Your task to perform on an android device: delete browsing data in the chrome app Image 0: 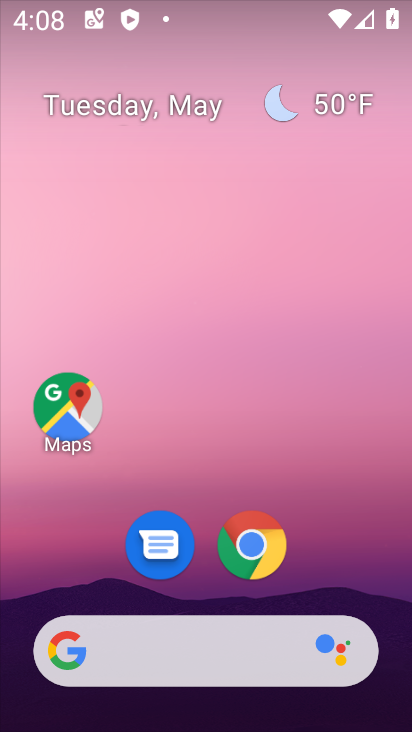
Step 0: click (253, 541)
Your task to perform on an android device: delete browsing data in the chrome app Image 1: 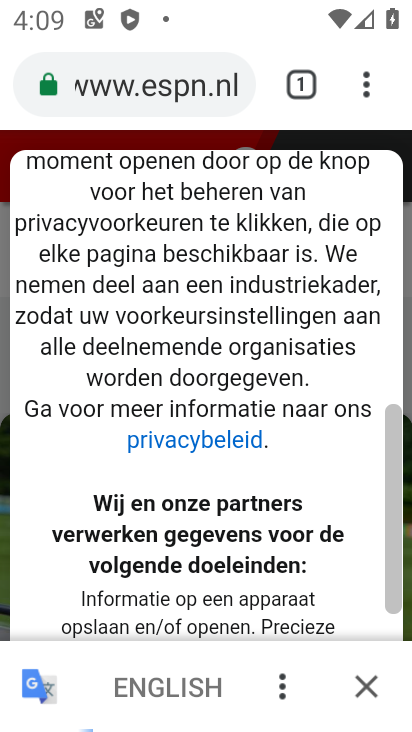
Step 1: click (364, 87)
Your task to perform on an android device: delete browsing data in the chrome app Image 2: 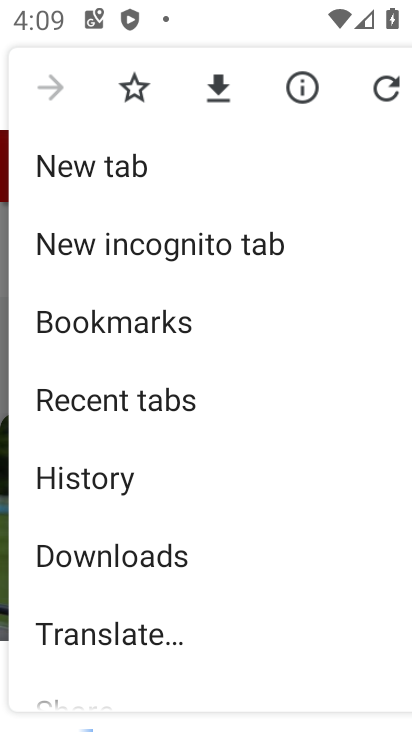
Step 2: click (133, 477)
Your task to perform on an android device: delete browsing data in the chrome app Image 3: 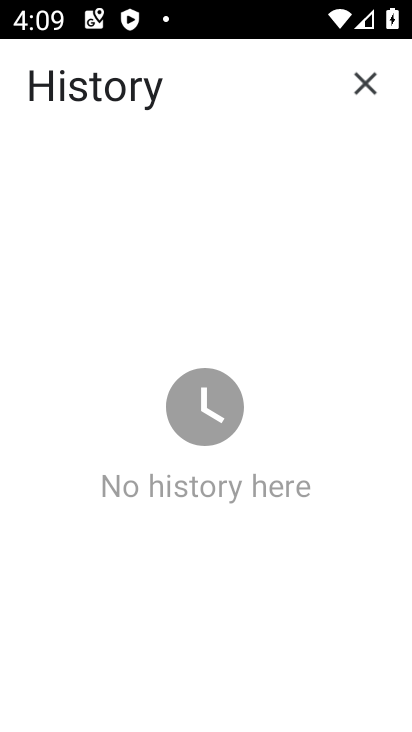
Step 3: task complete